Your task to perform on an android device: search for starred emails in the gmail app Image 0: 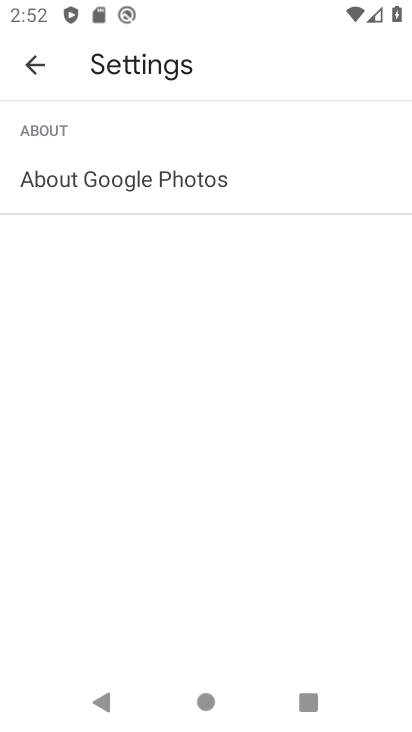
Step 0: press home button
Your task to perform on an android device: search for starred emails in the gmail app Image 1: 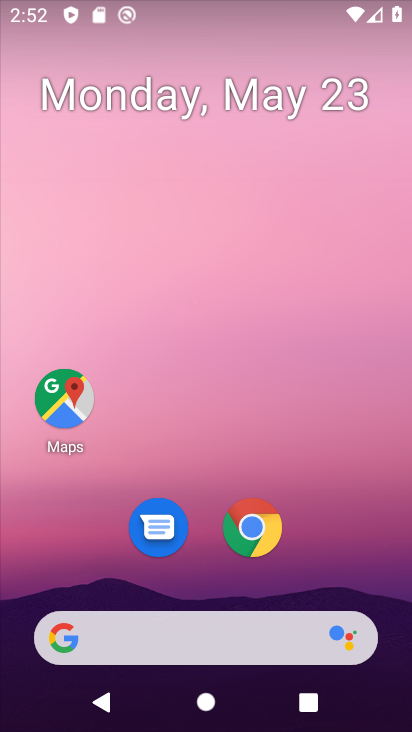
Step 1: drag from (260, 671) to (238, 108)
Your task to perform on an android device: search for starred emails in the gmail app Image 2: 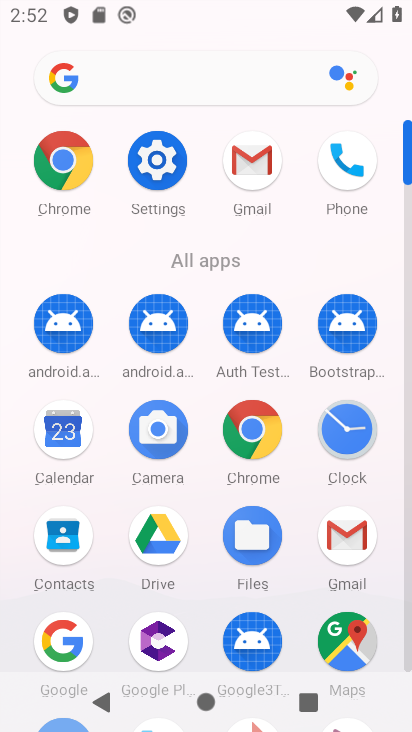
Step 2: click (238, 168)
Your task to perform on an android device: search for starred emails in the gmail app Image 3: 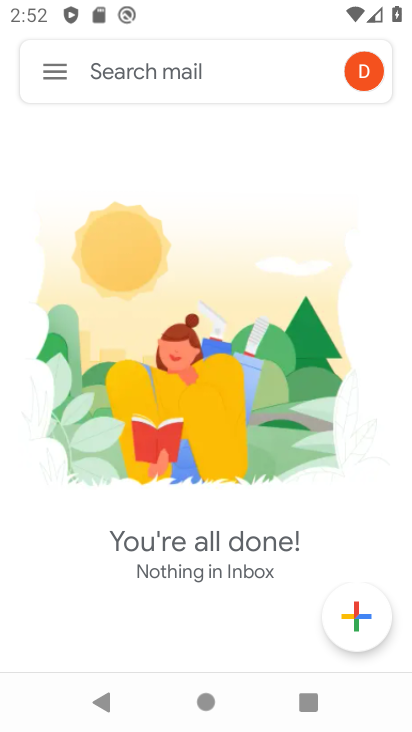
Step 3: click (54, 69)
Your task to perform on an android device: search for starred emails in the gmail app Image 4: 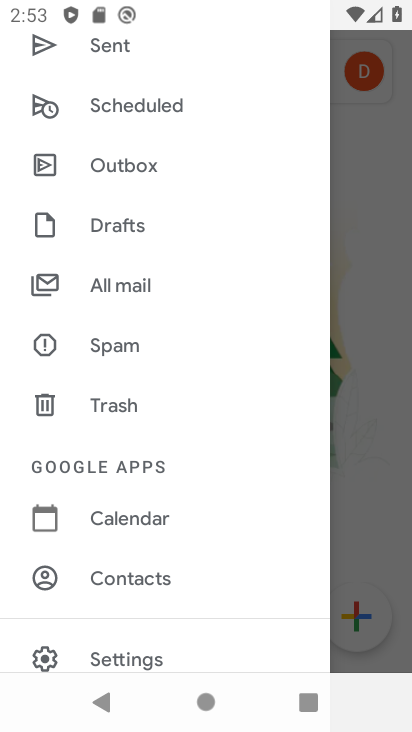
Step 4: drag from (140, 198) to (176, 339)
Your task to perform on an android device: search for starred emails in the gmail app Image 5: 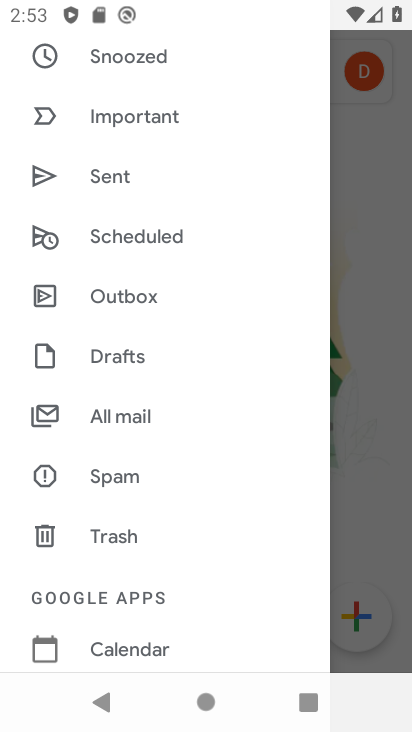
Step 5: drag from (133, 149) to (202, 488)
Your task to perform on an android device: search for starred emails in the gmail app Image 6: 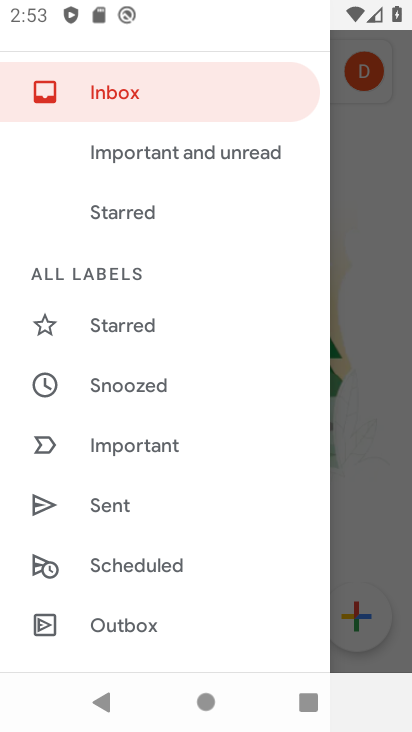
Step 6: click (141, 315)
Your task to perform on an android device: search for starred emails in the gmail app Image 7: 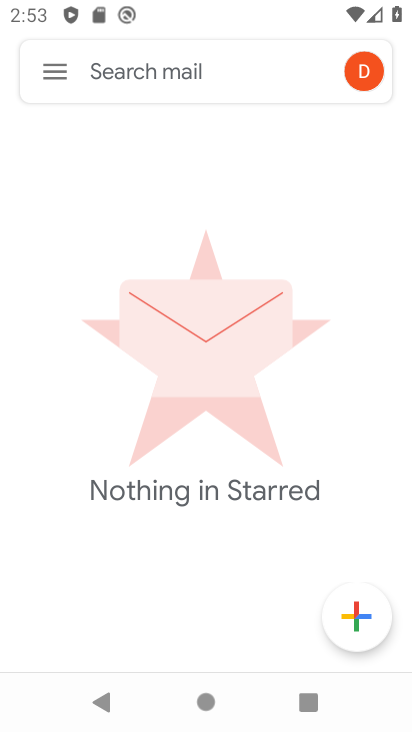
Step 7: task complete